Your task to perform on an android device: Search for pizza restaurants on Maps Image 0: 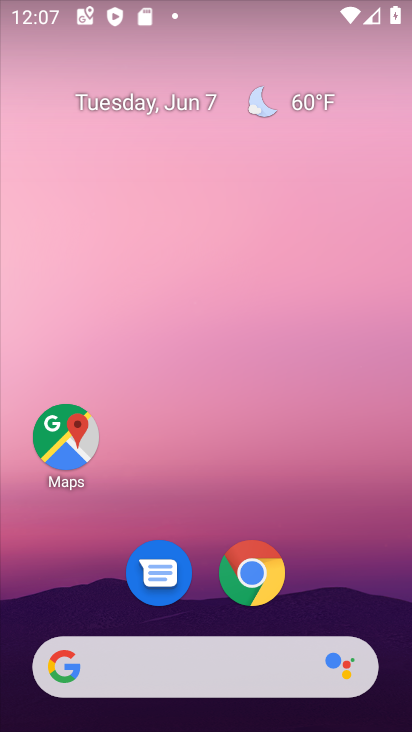
Step 0: press home button
Your task to perform on an android device: Search for pizza restaurants on Maps Image 1: 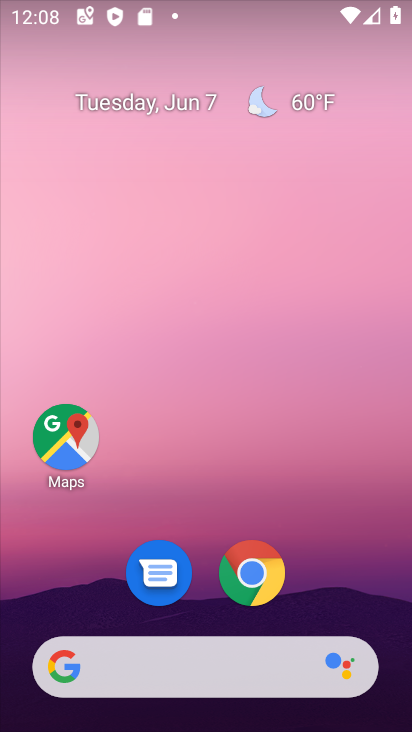
Step 1: click (73, 433)
Your task to perform on an android device: Search for pizza restaurants on Maps Image 2: 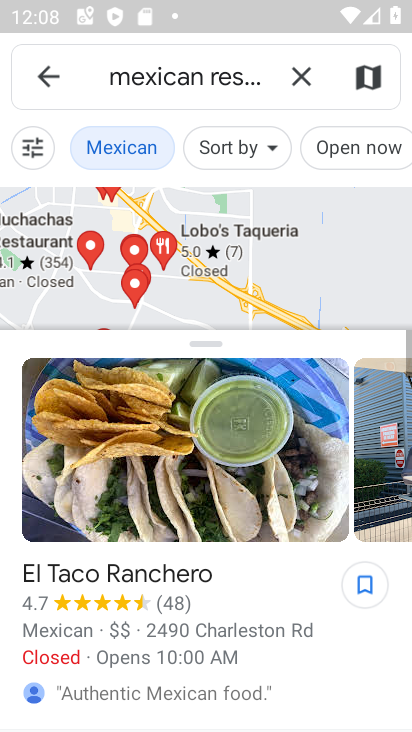
Step 2: click (293, 80)
Your task to perform on an android device: Search for pizza restaurants on Maps Image 3: 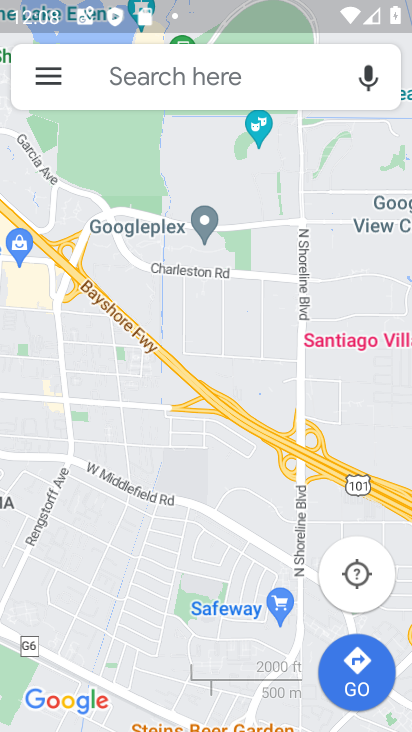
Step 3: click (242, 85)
Your task to perform on an android device: Search for pizza restaurants on Maps Image 4: 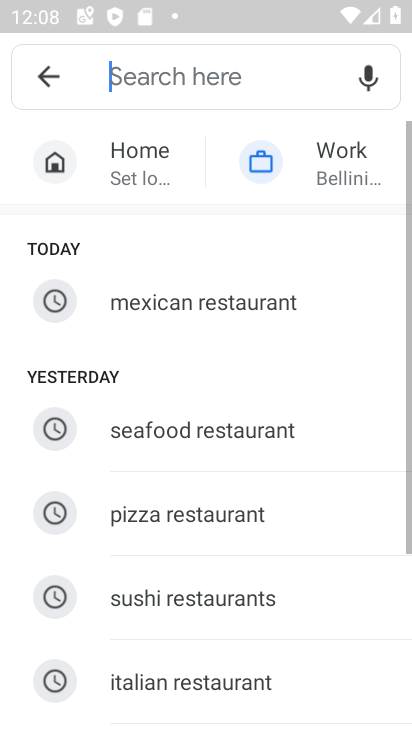
Step 4: click (242, 85)
Your task to perform on an android device: Search for pizza restaurants on Maps Image 5: 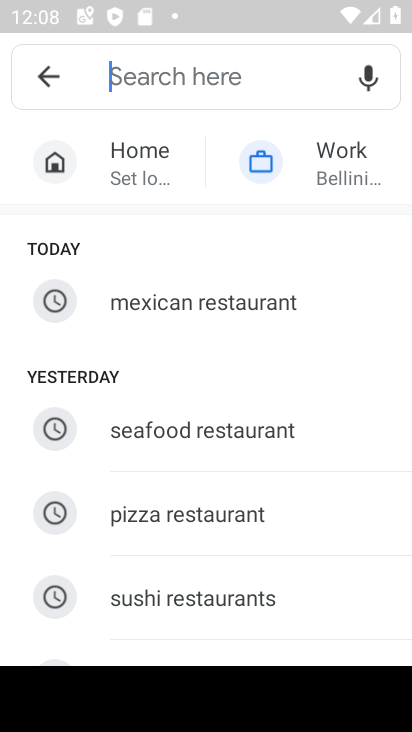
Step 5: type "pizza restaurants"
Your task to perform on an android device: Search for pizza restaurants on Maps Image 6: 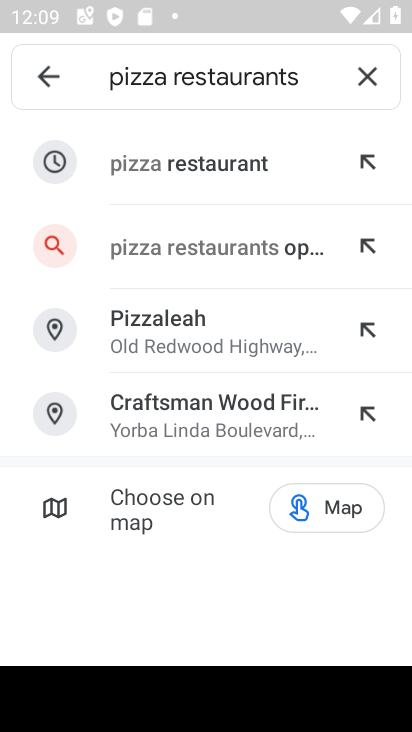
Step 6: click (148, 175)
Your task to perform on an android device: Search for pizza restaurants on Maps Image 7: 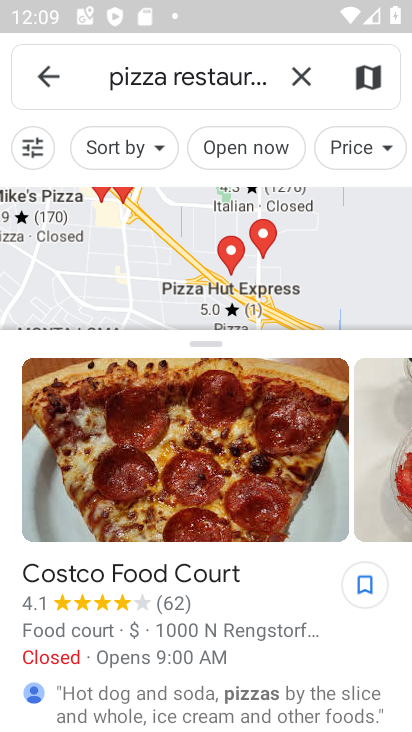
Step 7: task complete